Your task to perform on an android device: open device folders in google photos Image 0: 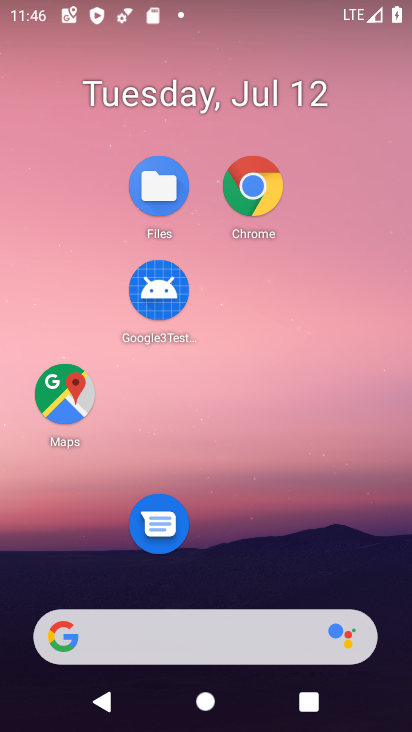
Step 0: drag from (224, 570) to (165, 59)
Your task to perform on an android device: open device folders in google photos Image 1: 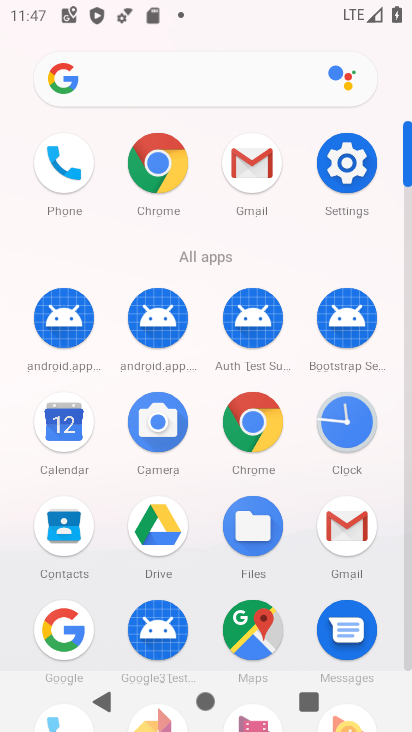
Step 1: drag from (196, 591) to (158, 263)
Your task to perform on an android device: open device folders in google photos Image 2: 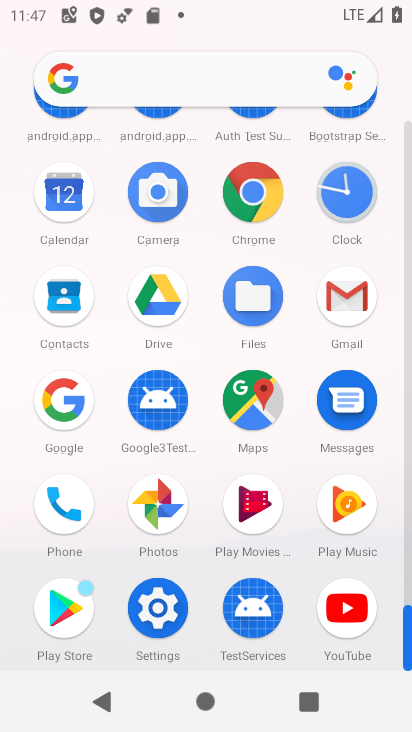
Step 2: click (170, 494)
Your task to perform on an android device: open device folders in google photos Image 3: 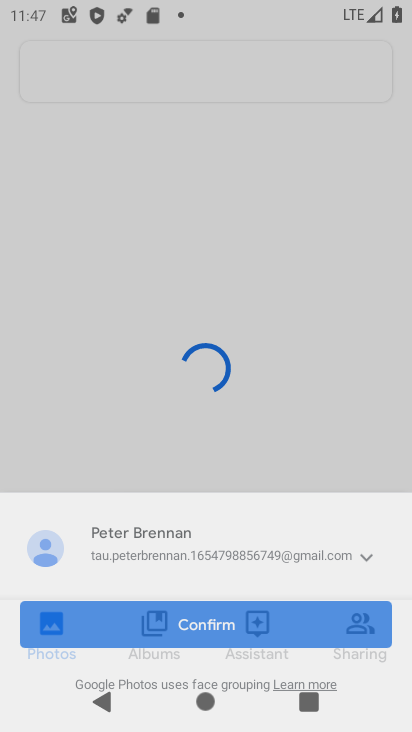
Step 3: click (47, 76)
Your task to perform on an android device: open device folders in google photos Image 4: 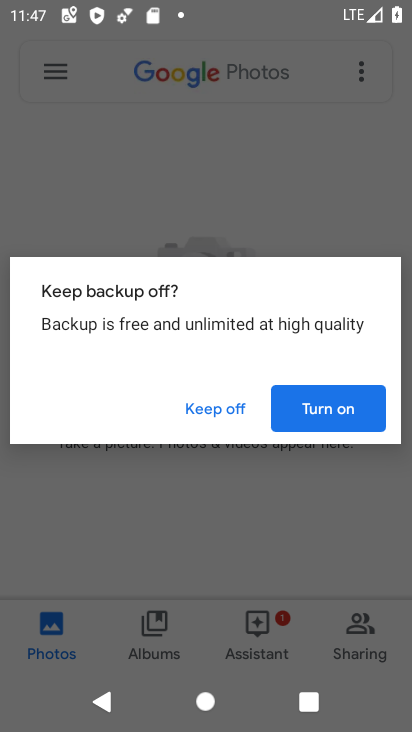
Step 4: click (295, 407)
Your task to perform on an android device: open device folders in google photos Image 5: 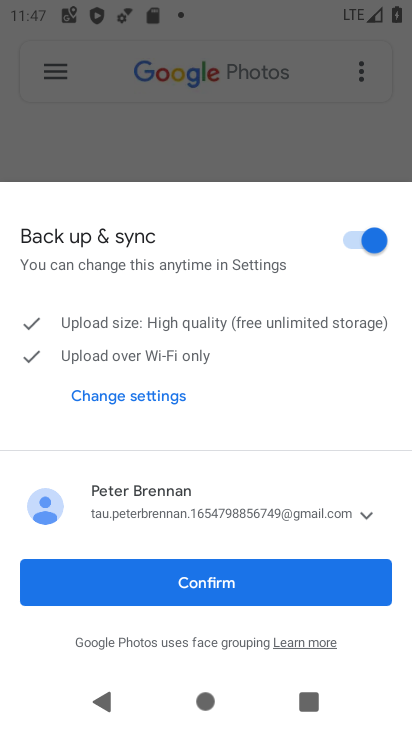
Step 5: click (229, 601)
Your task to perform on an android device: open device folders in google photos Image 6: 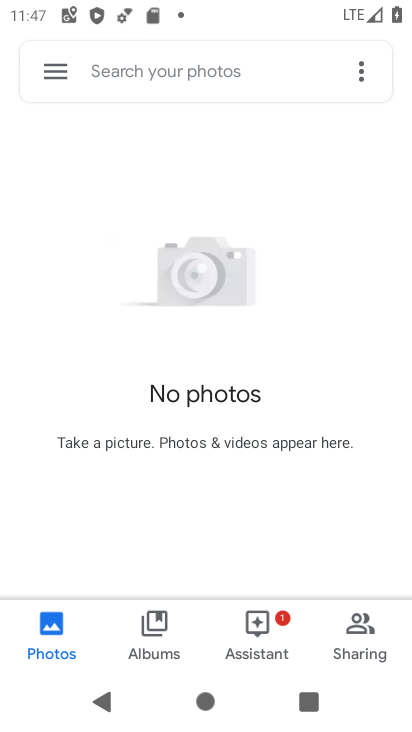
Step 6: click (40, 81)
Your task to perform on an android device: open device folders in google photos Image 7: 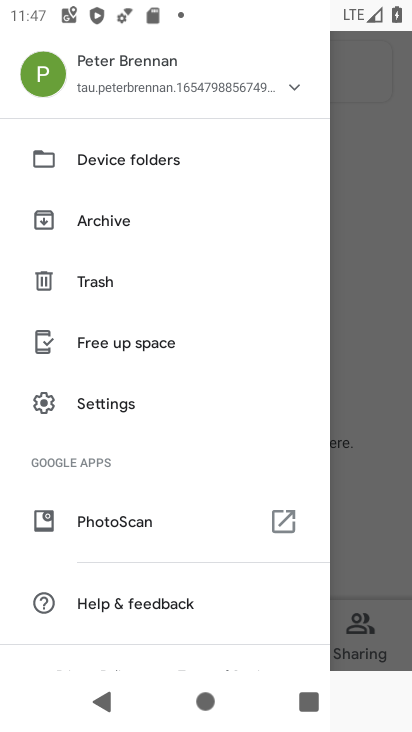
Step 7: click (115, 159)
Your task to perform on an android device: open device folders in google photos Image 8: 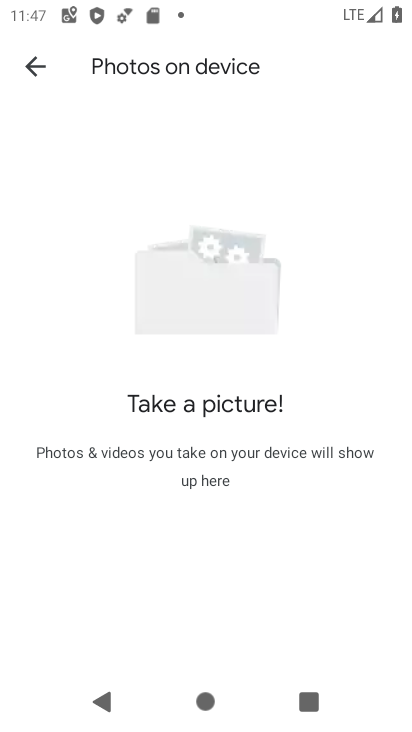
Step 8: task complete